Your task to perform on an android device: open the mobile data screen to see how much data has been used Image 0: 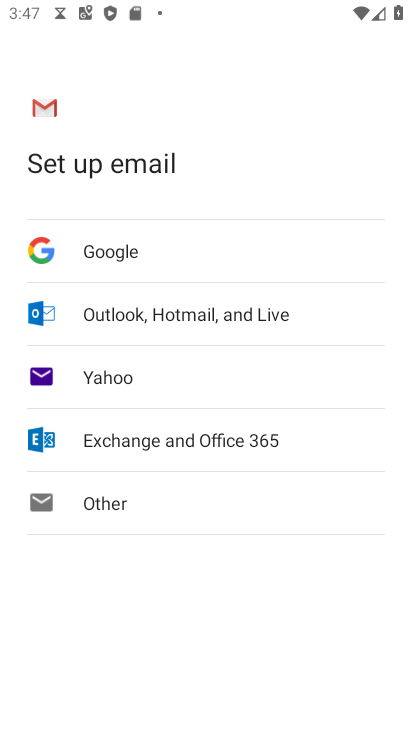
Step 0: press home button
Your task to perform on an android device: open the mobile data screen to see how much data has been used Image 1: 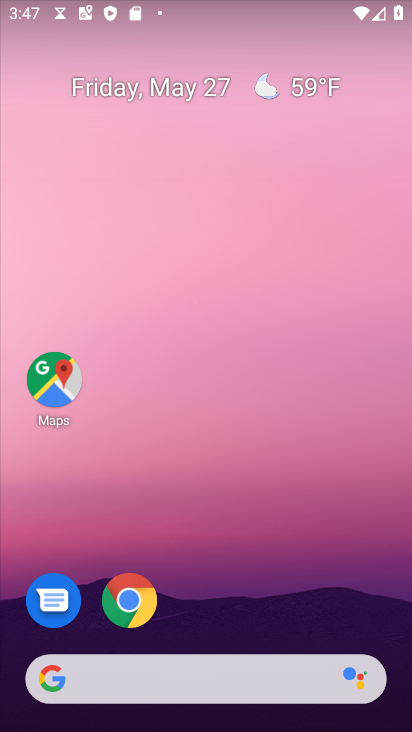
Step 1: drag from (280, 600) to (195, 210)
Your task to perform on an android device: open the mobile data screen to see how much data has been used Image 2: 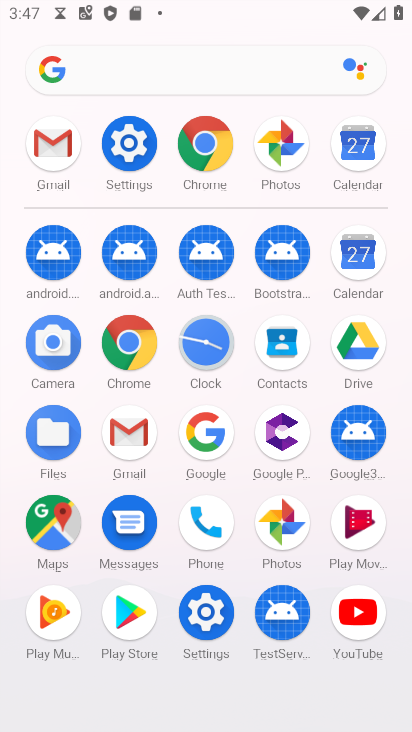
Step 2: click (129, 141)
Your task to perform on an android device: open the mobile data screen to see how much data has been used Image 3: 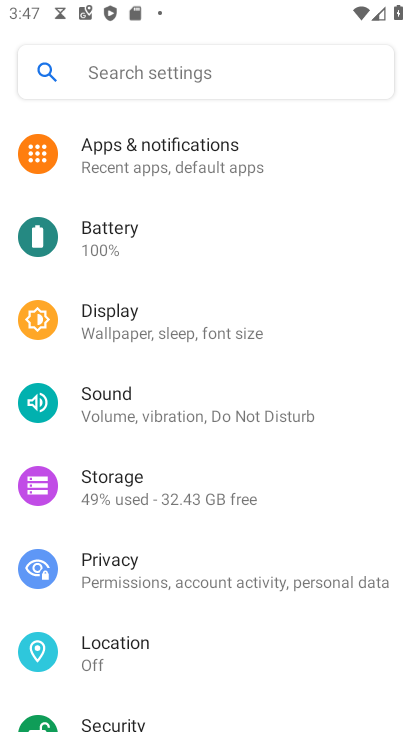
Step 3: drag from (190, 191) to (171, 306)
Your task to perform on an android device: open the mobile data screen to see how much data has been used Image 4: 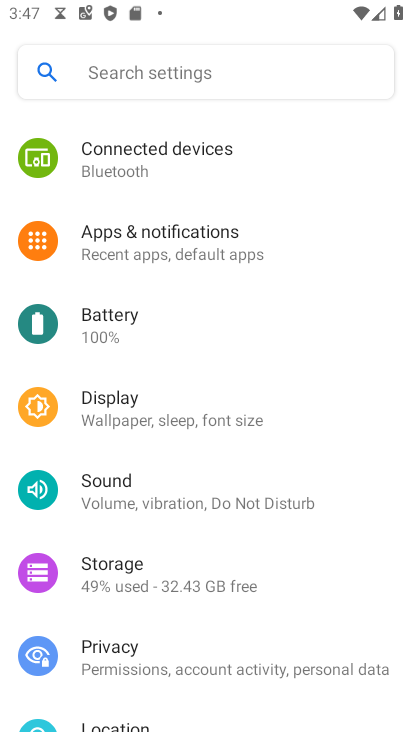
Step 4: drag from (173, 199) to (182, 309)
Your task to perform on an android device: open the mobile data screen to see how much data has been used Image 5: 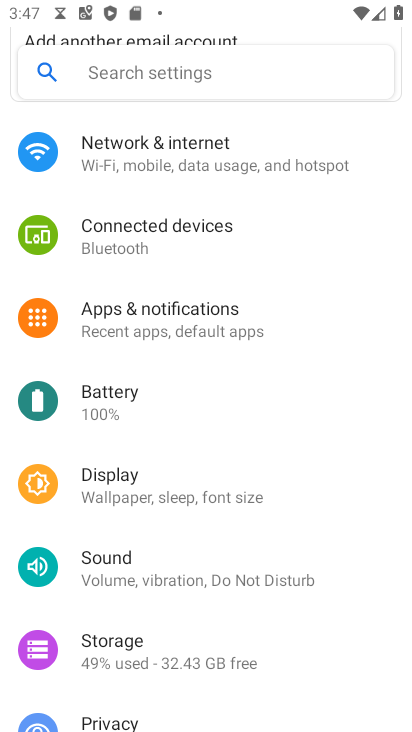
Step 5: drag from (172, 195) to (184, 357)
Your task to perform on an android device: open the mobile data screen to see how much data has been used Image 6: 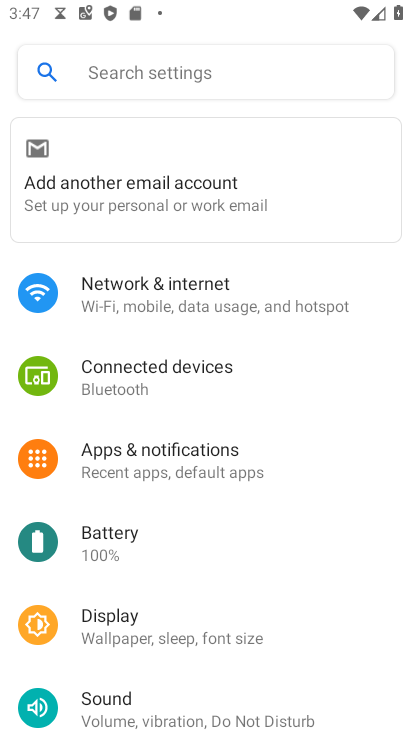
Step 6: click (154, 279)
Your task to perform on an android device: open the mobile data screen to see how much data has been used Image 7: 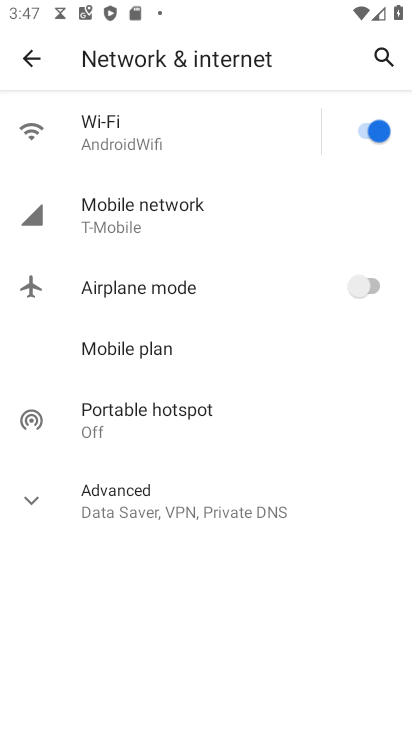
Step 7: click (132, 232)
Your task to perform on an android device: open the mobile data screen to see how much data has been used Image 8: 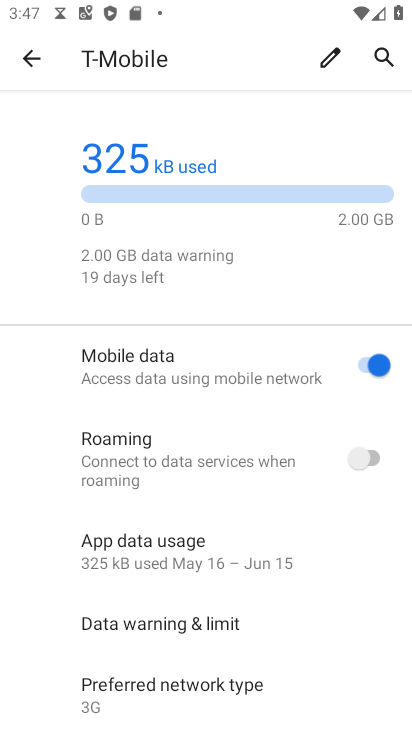
Step 8: task complete